Your task to perform on an android device: Go to Google Image 0: 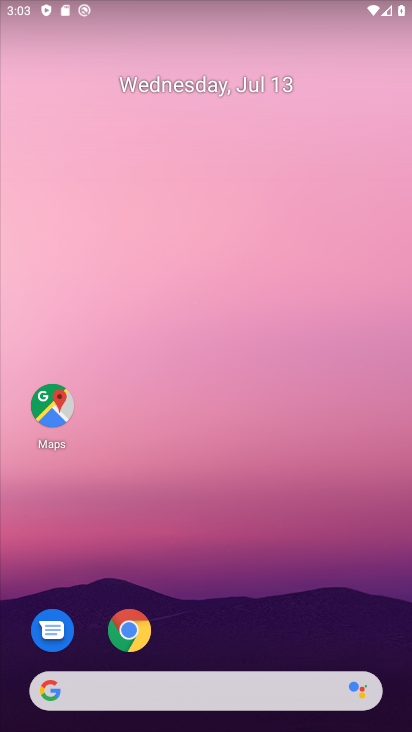
Step 0: click (138, 685)
Your task to perform on an android device: Go to Google Image 1: 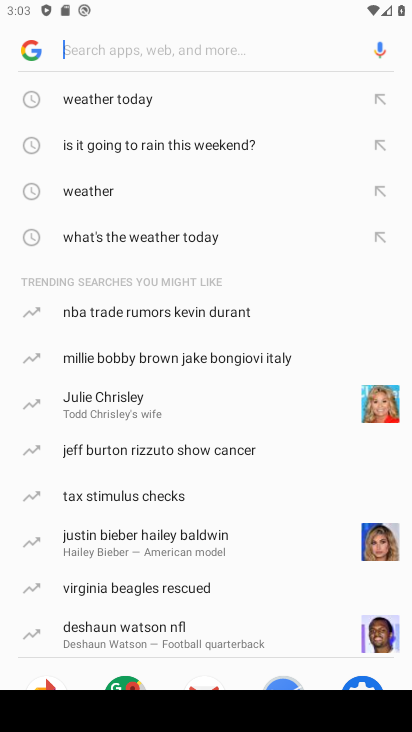
Step 1: task complete